Your task to perform on an android device: turn off data saver in the chrome app Image 0: 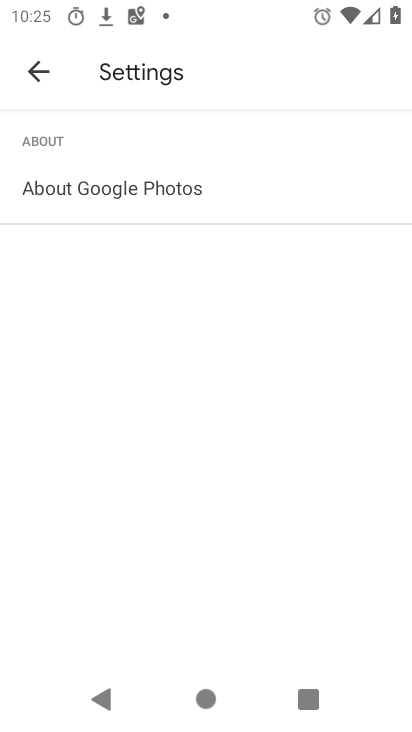
Step 0: press home button
Your task to perform on an android device: turn off data saver in the chrome app Image 1: 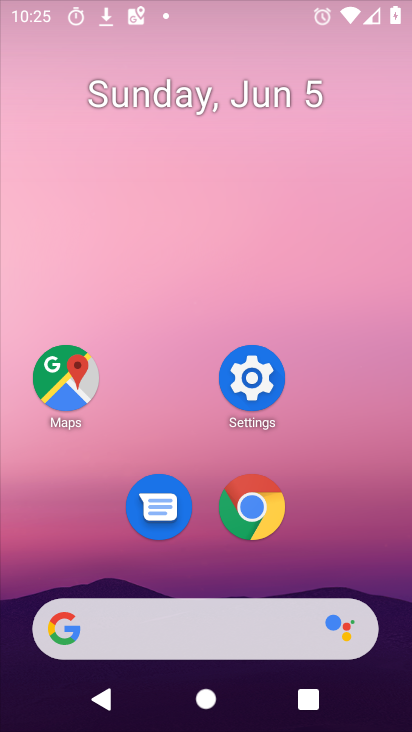
Step 1: drag from (191, 676) to (198, 219)
Your task to perform on an android device: turn off data saver in the chrome app Image 2: 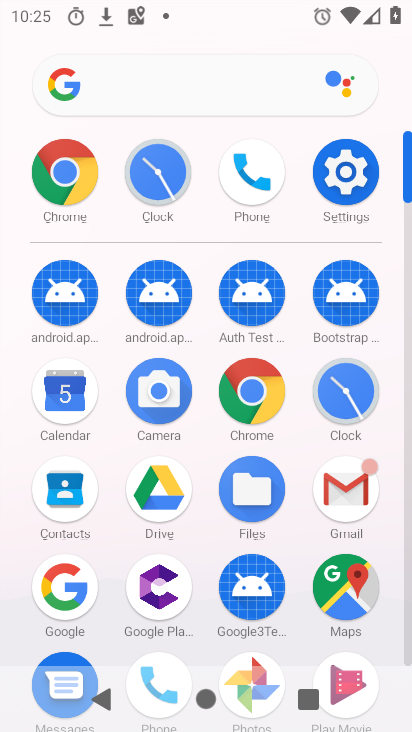
Step 2: click (77, 203)
Your task to perform on an android device: turn off data saver in the chrome app Image 3: 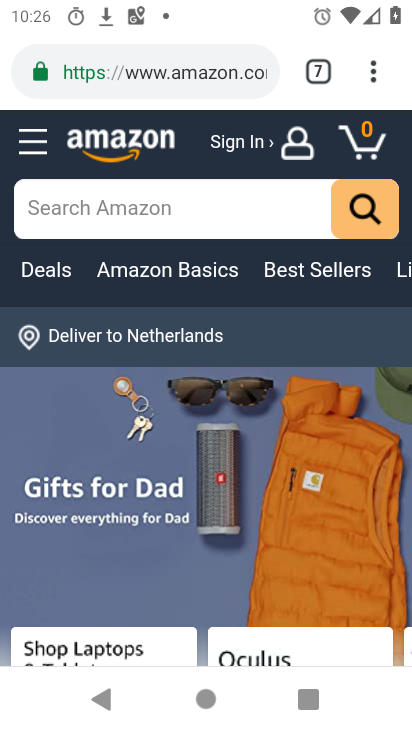
Step 3: click (362, 90)
Your task to perform on an android device: turn off data saver in the chrome app Image 4: 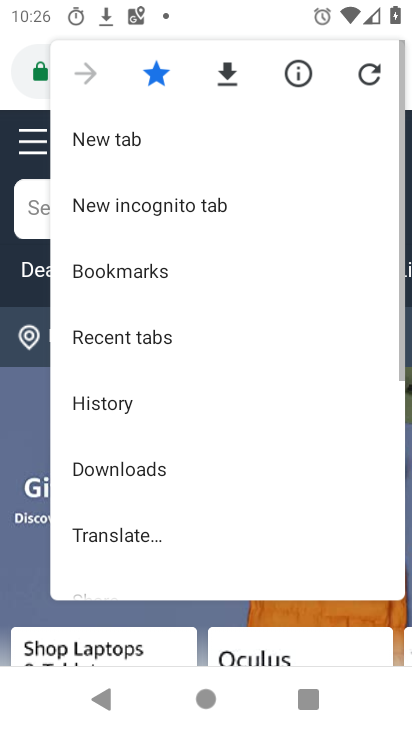
Step 4: drag from (168, 457) to (153, 178)
Your task to perform on an android device: turn off data saver in the chrome app Image 5: 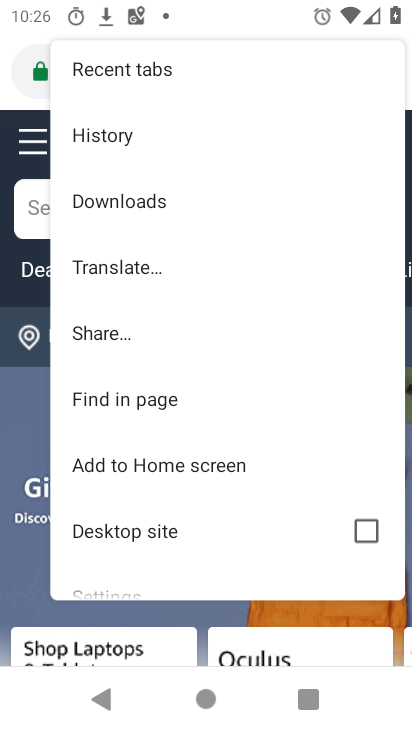
Step 5: drag from (134, 549) to (138, 447)
Your task to perform on an android device: turn off data saver in the chrome app Image 6: 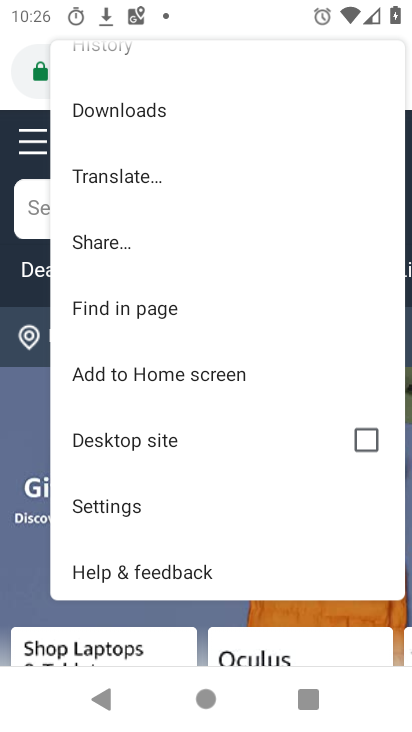
Step 6: click (137, 510)
Your task to perform on an android device: turn off data saver in the chrome app Image 7: 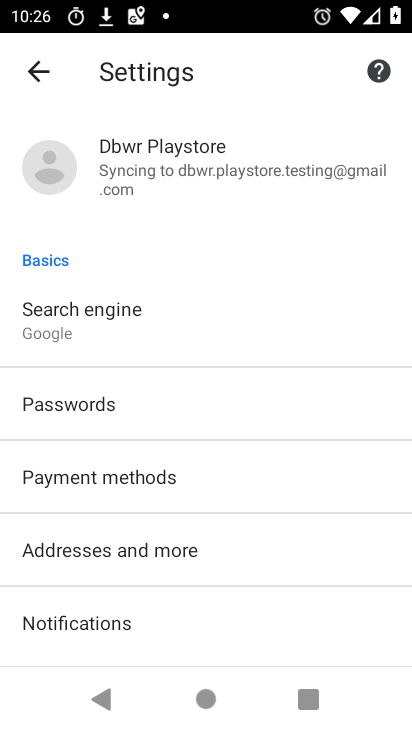
Step 7: drag from (156, 619) to (204, 309)
Your task to perform on an android device: turn off data saver in the chrome app Image 8: 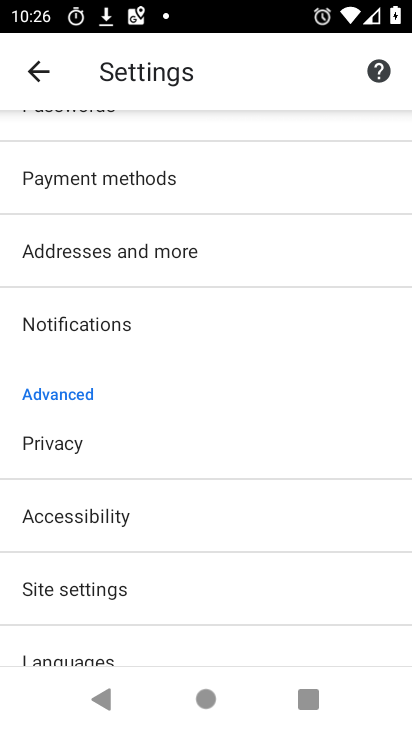
Step 8: drag from (92, 582) to (118, 423)
Your task to perform on an android device: turn off data saver in the chrome app Image 9: 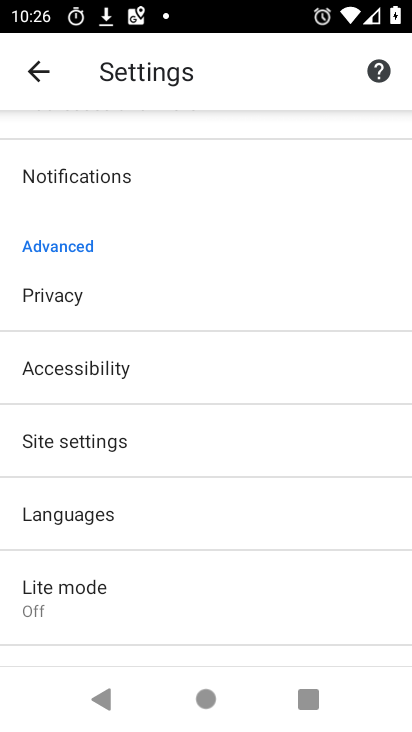
Step 9: click (78, 620)
Your task to perform on an android device: turn off data saver in the chrome app Image 10: 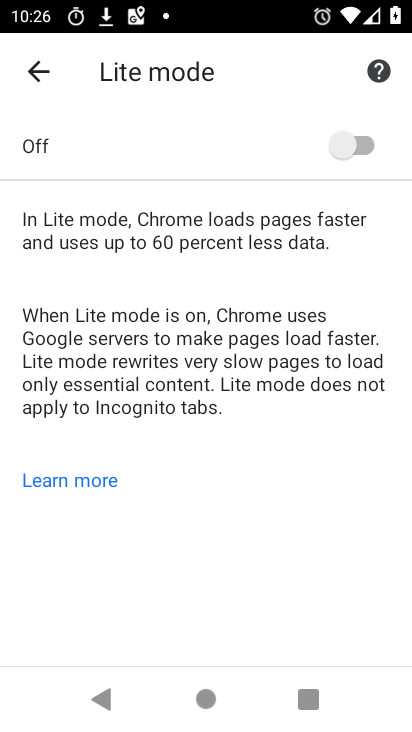
Step 10: click (355, 137)
Your task to perform on an android device: turn off data saver in the chrome app Image 11: 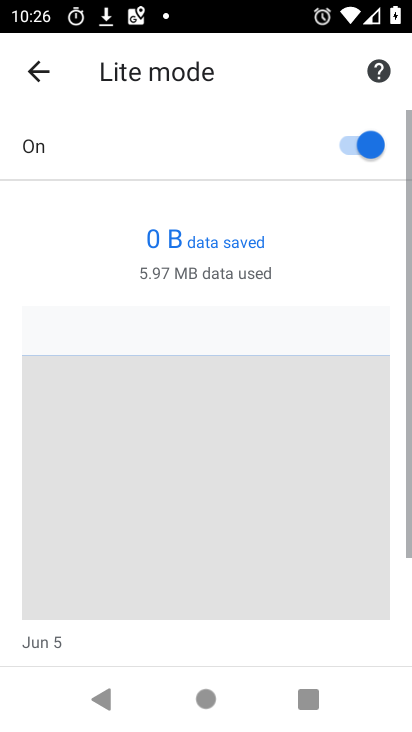
Step 11: click (343, 160)
Your task to perform on an android device: turn off data saver in the chrome app Image 12: 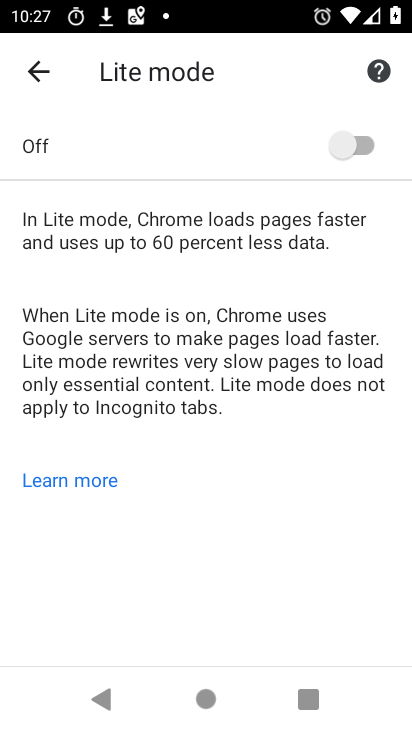
Step 12: task complete